Your task to perform on an android device: change notification settings in the gmail app Image 0: 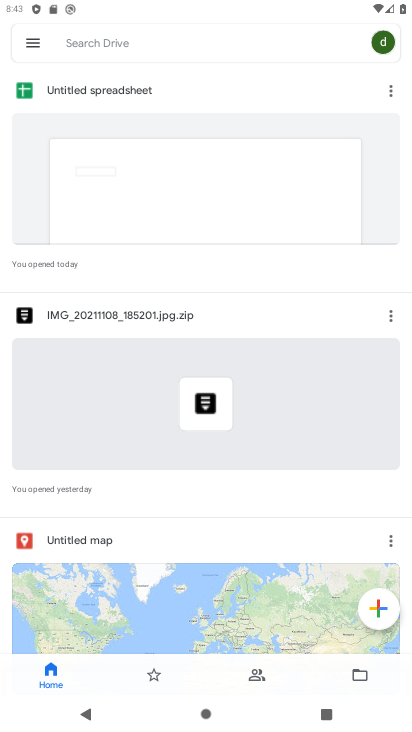
Step 0: press home button
Your task to perform on an android device: change notification settings in the gmail app Image 1: 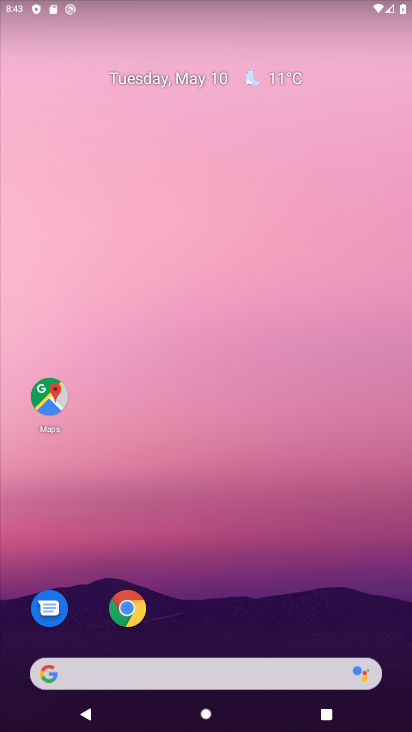
Step 1: drag from (241, 611) to (201, 110)
Your task to perform on an android device: change notification settings in the gmail app Image 2: 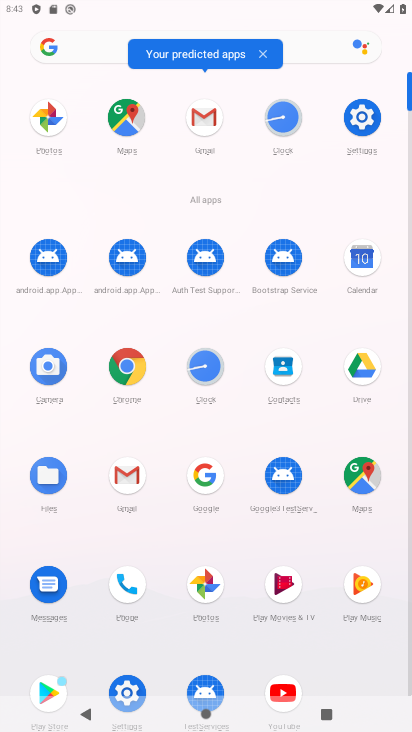
Step 2: click (206, 118)
Your task to perform on an android device: change notification settings in the gmail app Image 3: 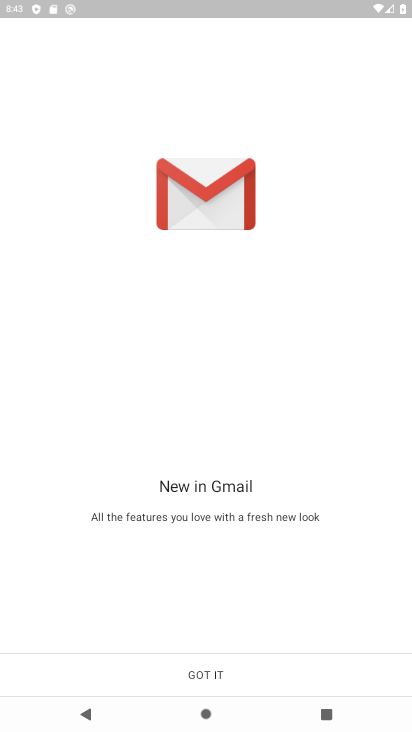
Step 3: click (195, 668)
Your task to perform on an android device: change notification settings in the gmail app Image 4: 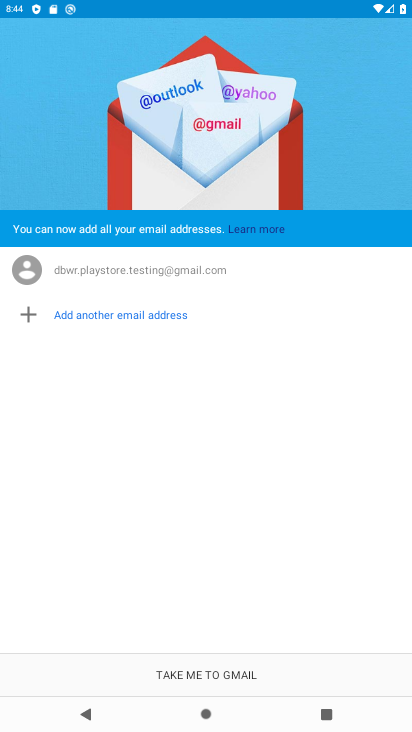
Step 4: click (195, 668)
Your task to perform on an android device: change notification settings in the gmail app Image 5: 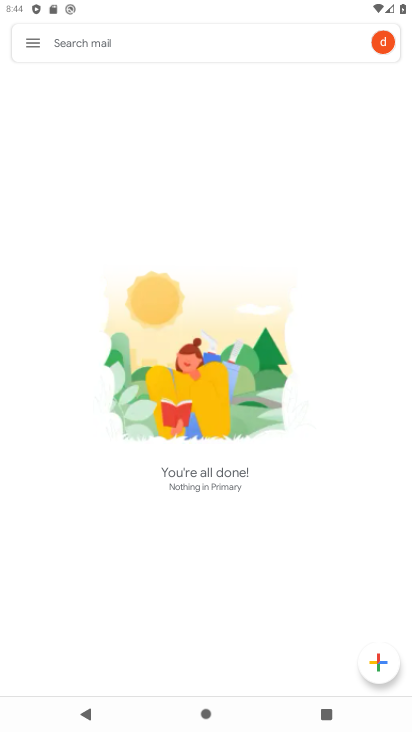
Step 5: click (30, 43)
Your task to perform on an android device: change notification settings in the gmail app Image 6: 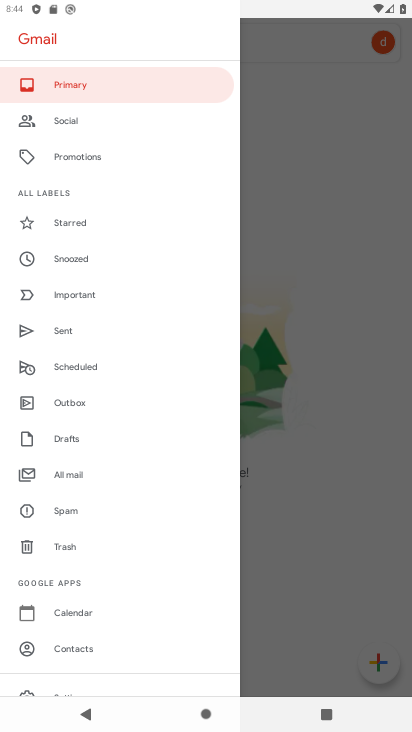
Step 6: drag from (93, 599) to (118, 526)
Your task to perform on an android device: change notification settings in the gmail app Image 7: 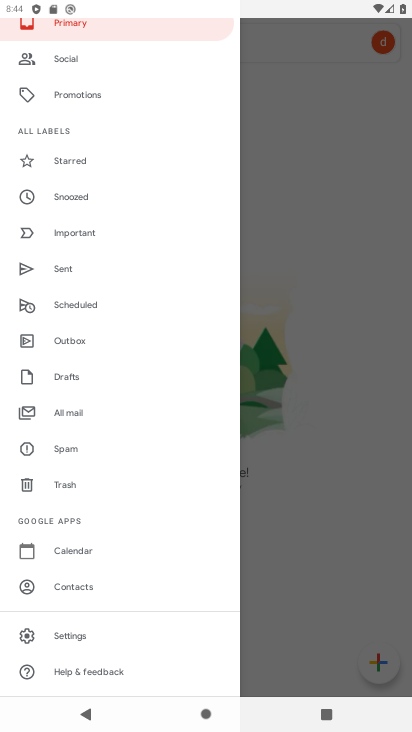
Step 7: click (68, 629)
Your task to perform on an android device: change notification settings in the gmail app Image 8: 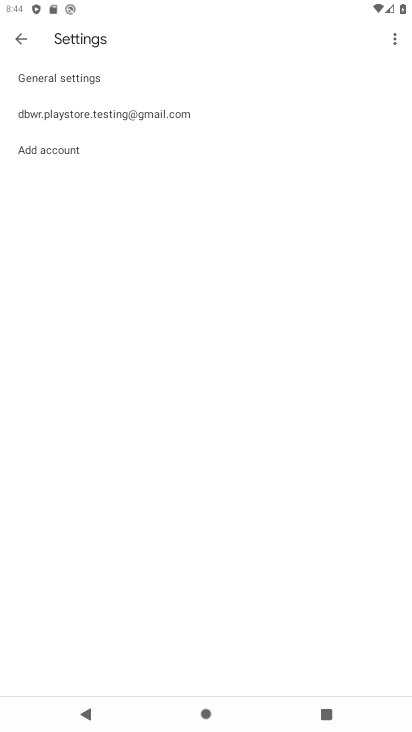
Step 8: click (156, 106)
Your task to perform on an android device: change notification settings in the gmail app Image 9: 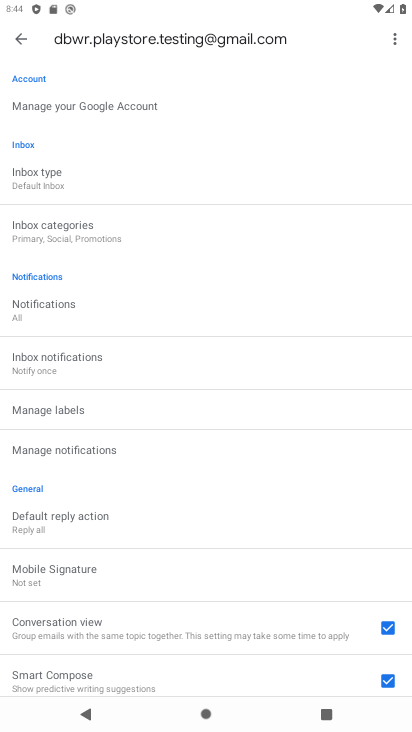
Step 9: click (60, 454)
Your task to perform on an android device: change notification settings in the gmail app Image 10: 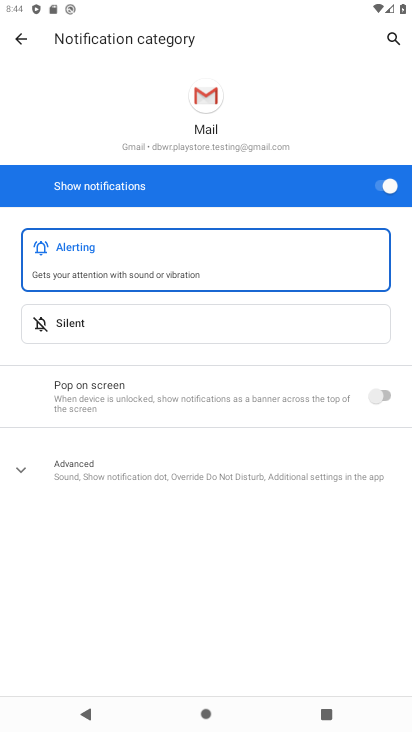
Step 10: click (389, 189)
Your task to perform on an android device: change notification settings in the gmail app Image 11: 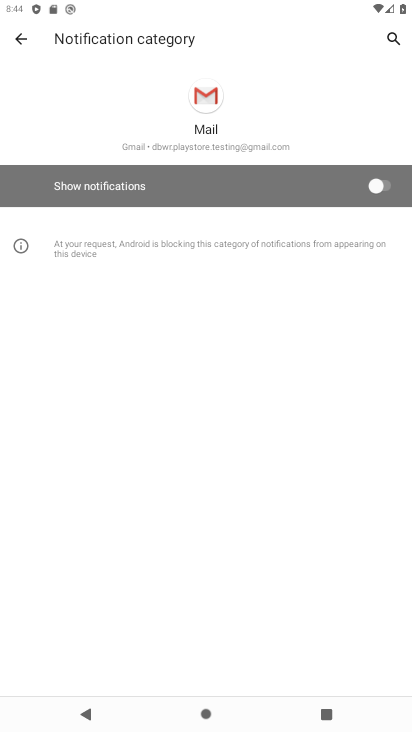
Step 11: task complete